Your task to perform on an android device: Go to Maps Image 0: 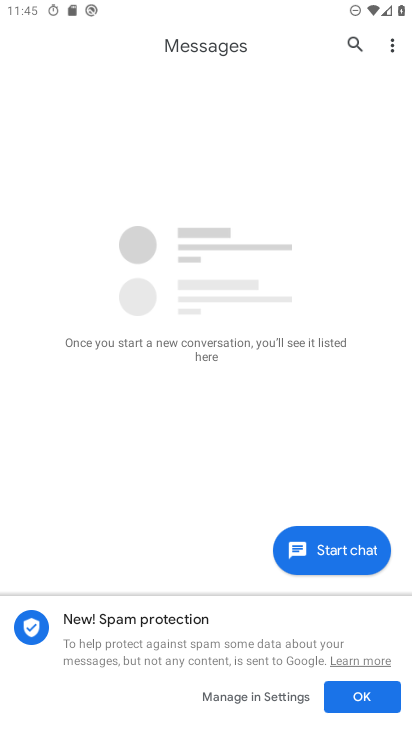
Step 0: press home button
Your task to perform on an android device: Go to Maps Image 1: 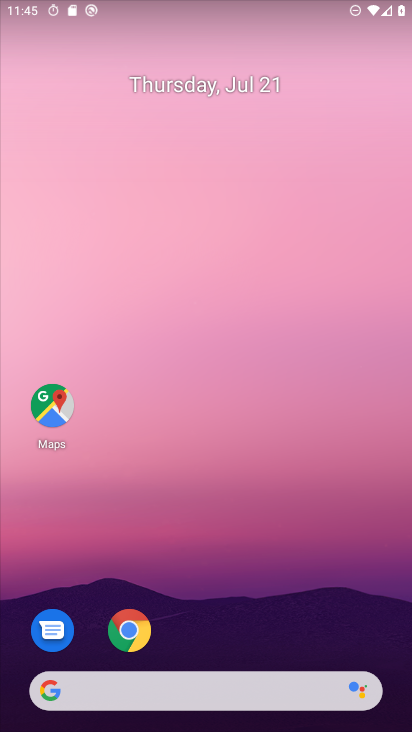
Step 1: click (49, 407)
Your task to perform on an android device: Go to Maps Image 2: 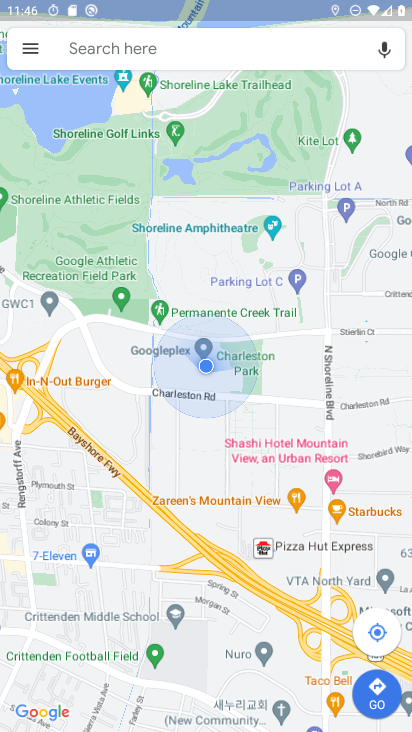
Step 2: task complete